Your task to perform on an android device: Open the calendar and show me this week's events? Image 0: 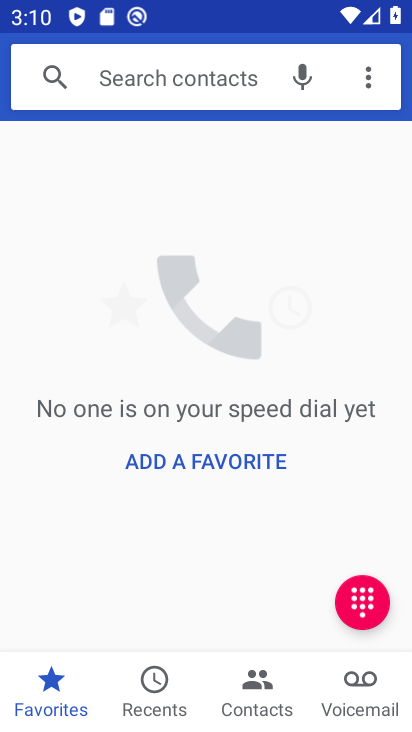
Step 0: drag from (229, 565) to (300, 269)
Your task to perform on an android device: Open the calendar and show me this week's events? Image 1: 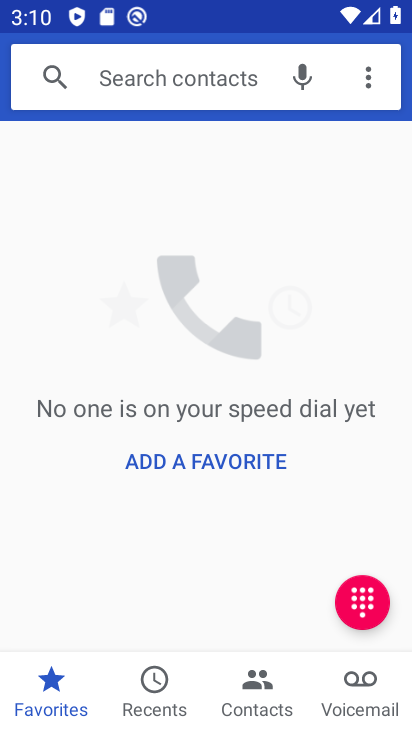
Step 1: press home button
Your task to perform on an android device: Open the calendar and show me this week's events? Image 2: 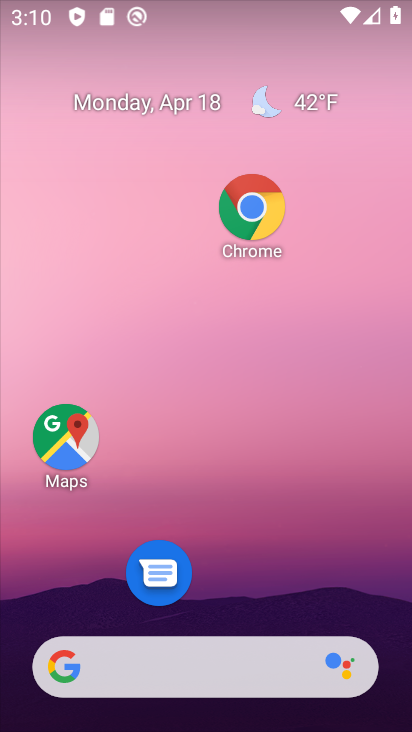
Step 2: drag from (221, 588) to (329, 203)
Your task to perform on an android device: Open the calendar and show me this week's events? Image 3: 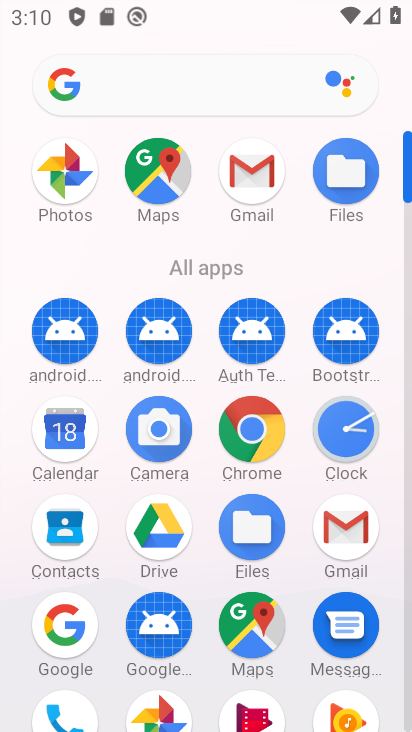
Step 3: click (70, 439)
Your task to perform on an android device: Open the calendar and show me this week's events? Image 4: 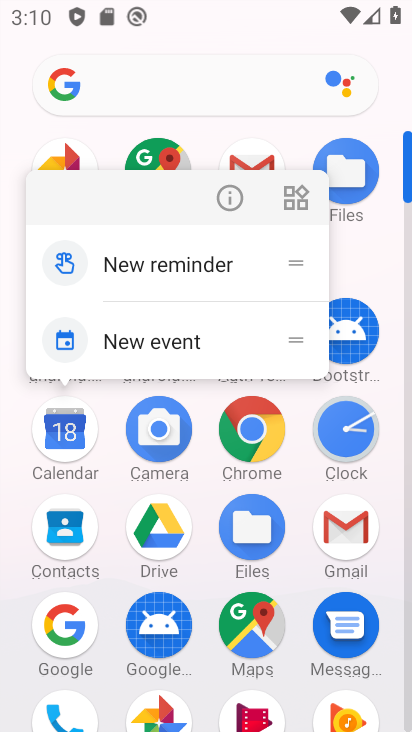
Step 4: click (234, 207)
Your task to perform on an android device: Open the calendar and show me this week's events? Image 5: 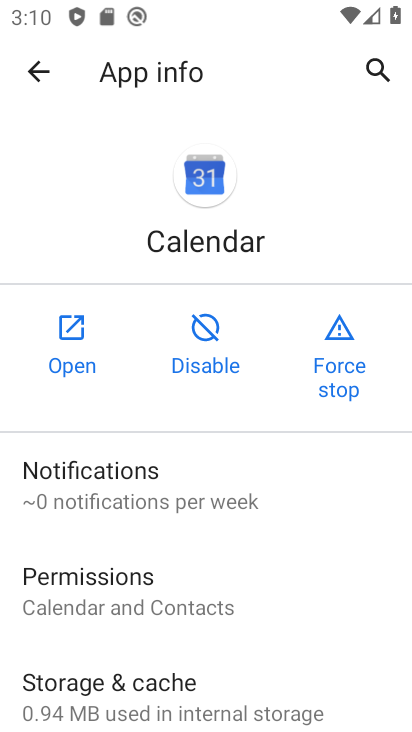
Step 5: click (68, 336)
Your task to perform on an android device: Open the calendar and show me this week's events? Image 6: 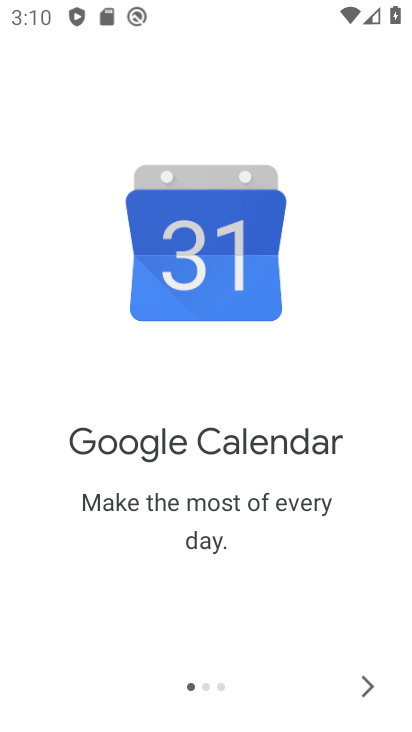
Step 6: click (355, 680)
Your task to perform on an android device: Open the calendar and show me this week's events? Image 7: 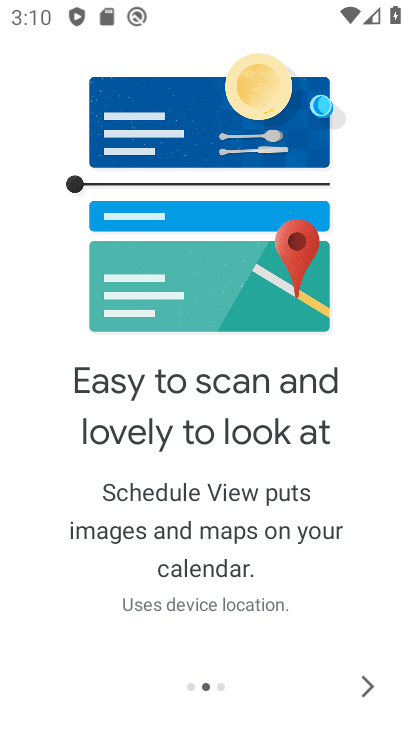
Step 7: click (359, 684)
Your task to perform on an android device: Open the calendar and show me this week's events? Image 8: 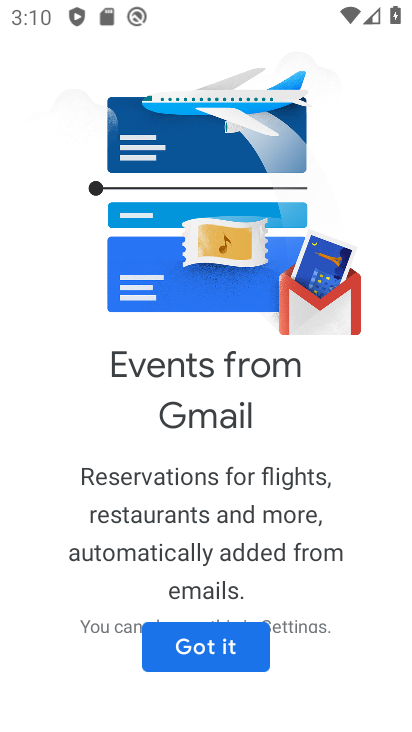
Step 8: click (364, 685)
Your task to perform on an android device: Open the calendar and show me this week's events? Image 9: 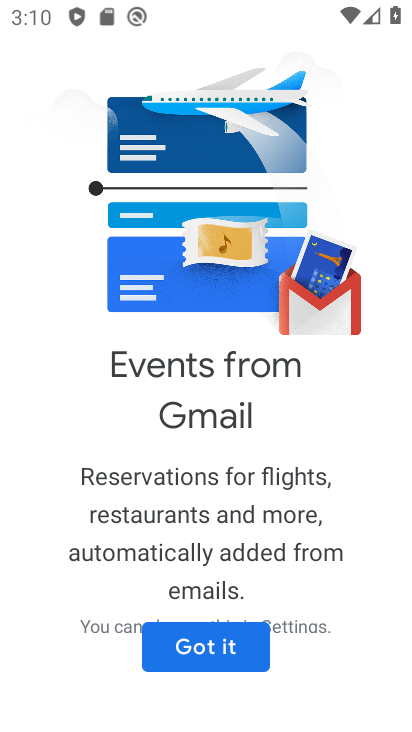
Step 9: click (300, 673)
Your task to perform on an android device: Open the calendar and show me this week's events? Image 10: 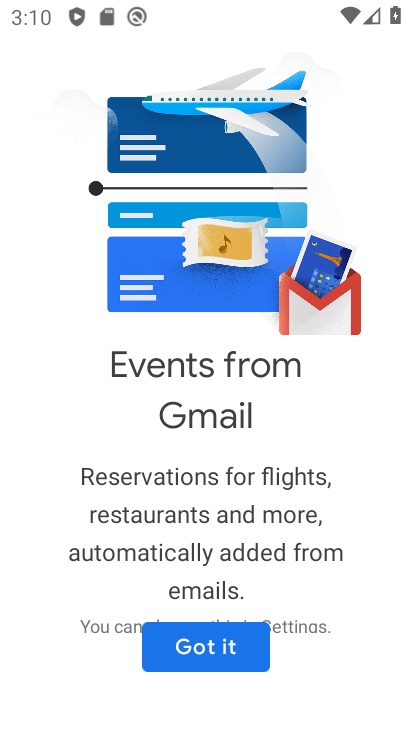
Step 10: click (257, 663)
Your task to perform on an android device: Open the calendar and show me this week's events? Image 11: 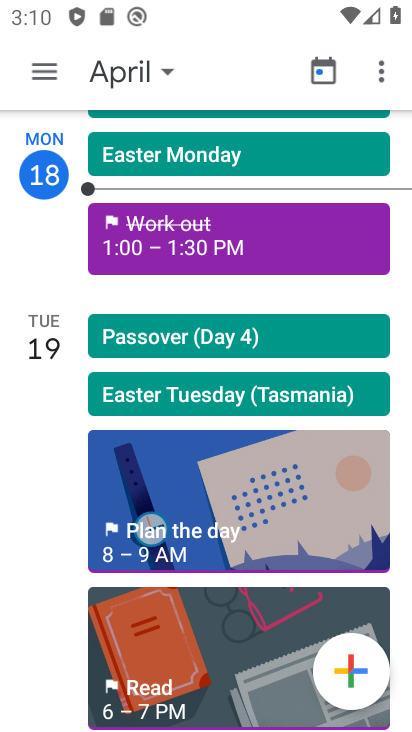
Step 11: task complete